Your task to perform on an android device: Open calendar and show me the third week of next month Image 0: 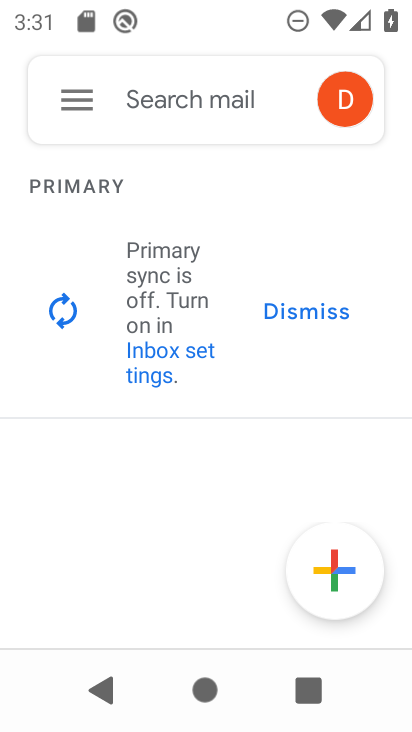
Step 0: press home button
Your task to perform on an android device: Open calendar and show me the third week of next month Image 1: 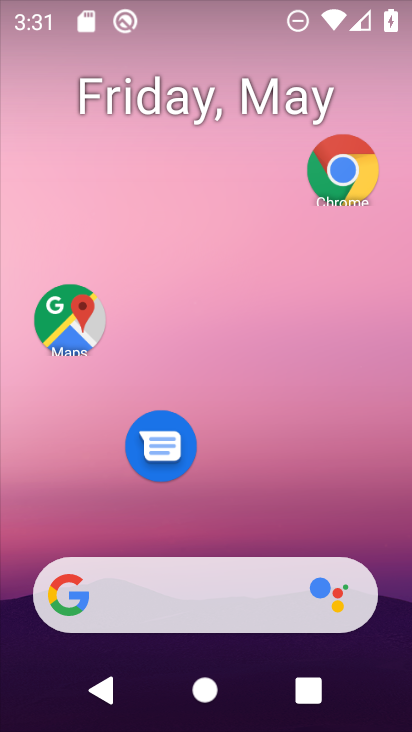
Step 1: drag from (284, 510) to (283, 71)
Your task to perform on an android device: Open calendar and show me the third week of next month Image 2: 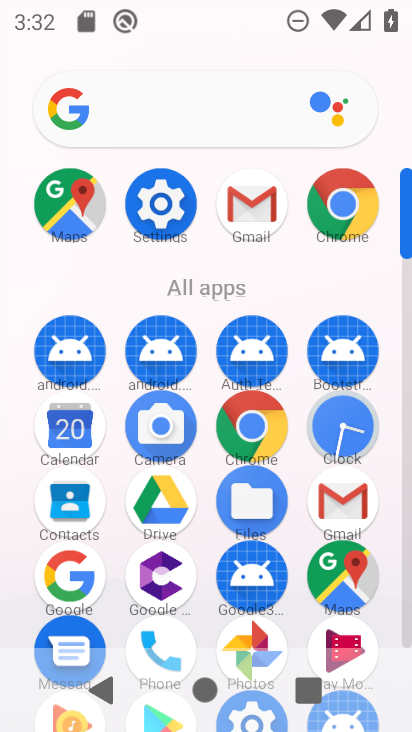
Step 2: click (75, 425)
Your task to perform on an android device: Open calendar and show me the third week of next month Image 3: 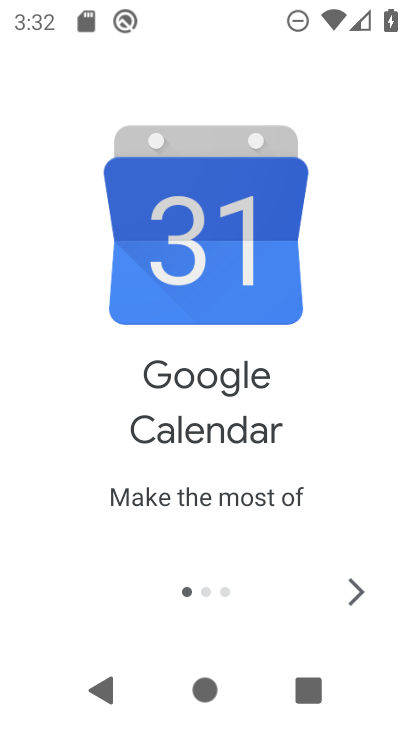
Step 3: click (360, 589)
Your task to perform on an android device: Open calendar and show me the third week of next month Image 4: 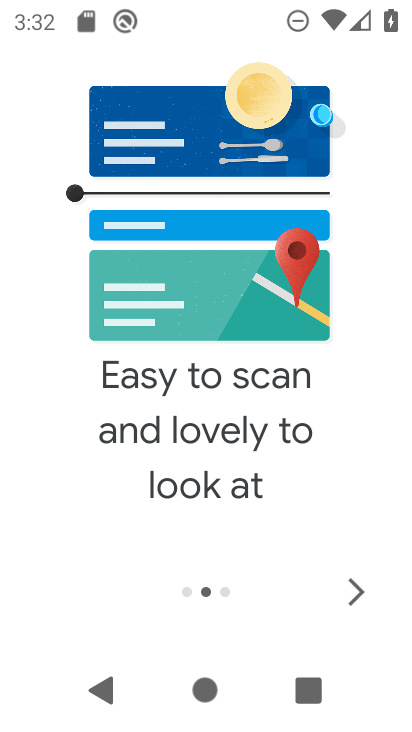
Step 4: click (360, 589)
Your task to perform on an android device: Open calendar and show me the third week of next month Image 5: 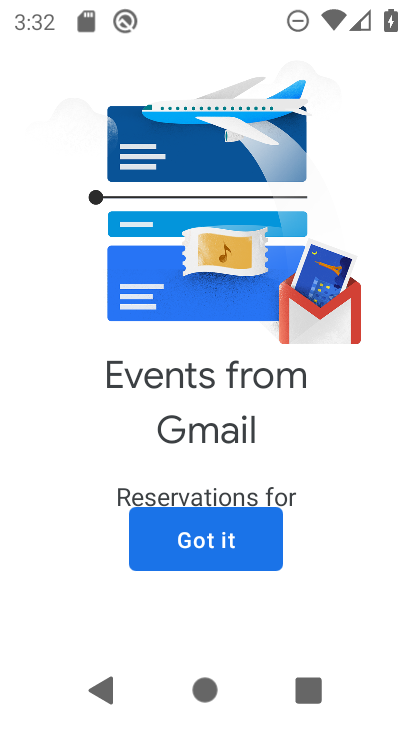
Step 5: click (217, 527)
Your task to perform on an android device: Open calendar and show me the third week of next month Image 6: 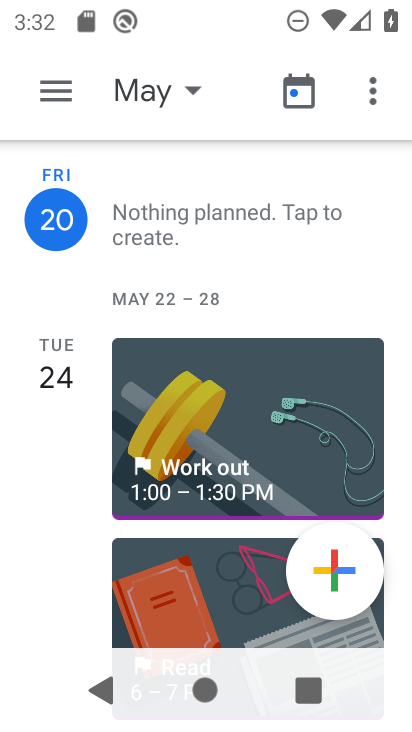
Step 6: click (182, 88)
Your task to perform on an android device: Open calendar and show me the third week of next month Image 7: 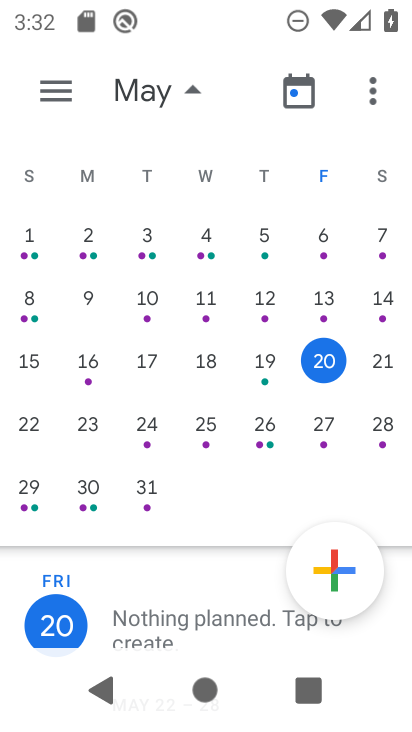
Step 7: drag from (383, 273) to (40, 247)
Your task to perform on an android device: Open calendar and show me the third week of next month Image 8: 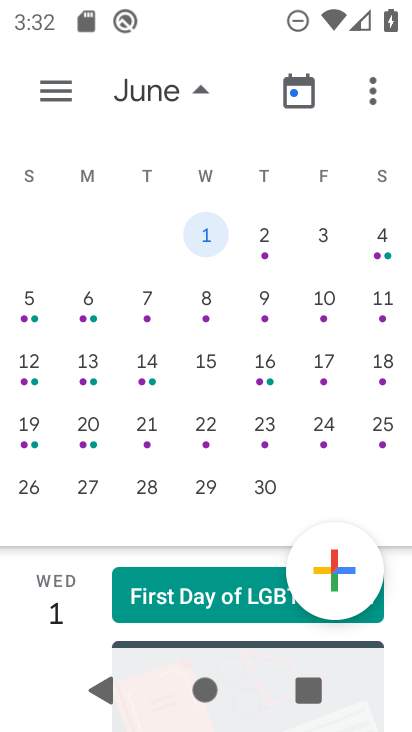
Step 8: click (262, 366)
Your task to perform on an android device: Open calendar and show me the third week of next month Image 9: 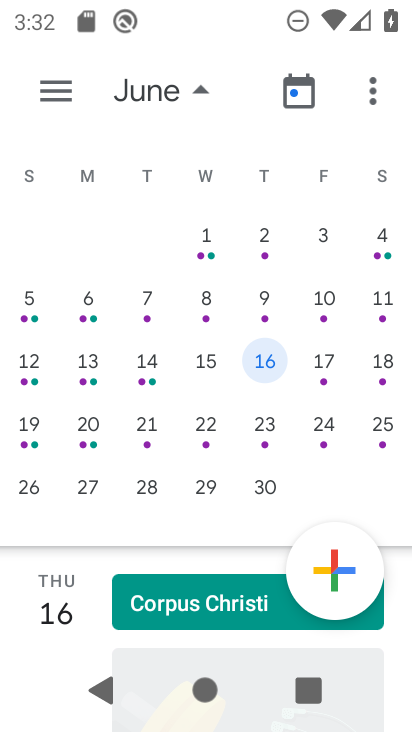
Step 9: task complete